Your task to perform on an android device: toggle wifi Image 0: 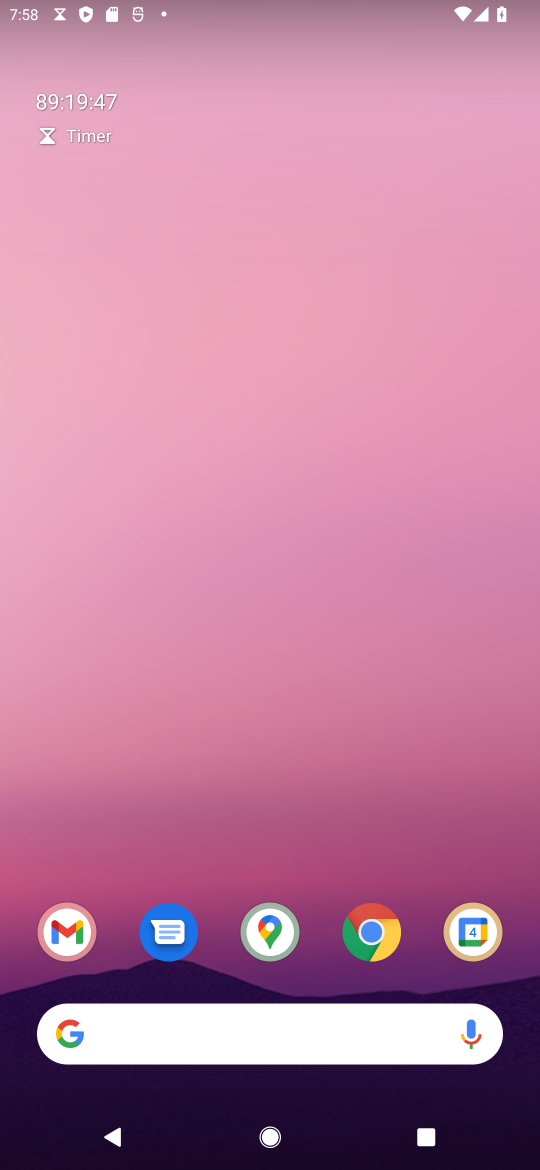
Step 0: drag from (212, 886) to (188, 201)
Your task to perform on an android device: toggle wifi Image 1: 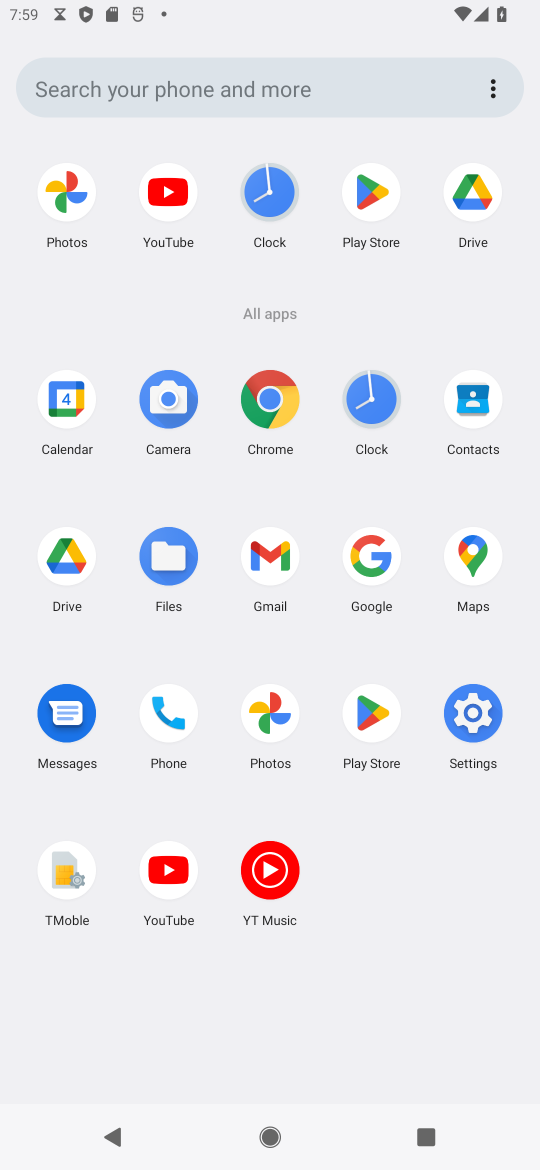
Step 1: click (464, 710)
Your task to perform on an android device: toggle wifi Image 2: 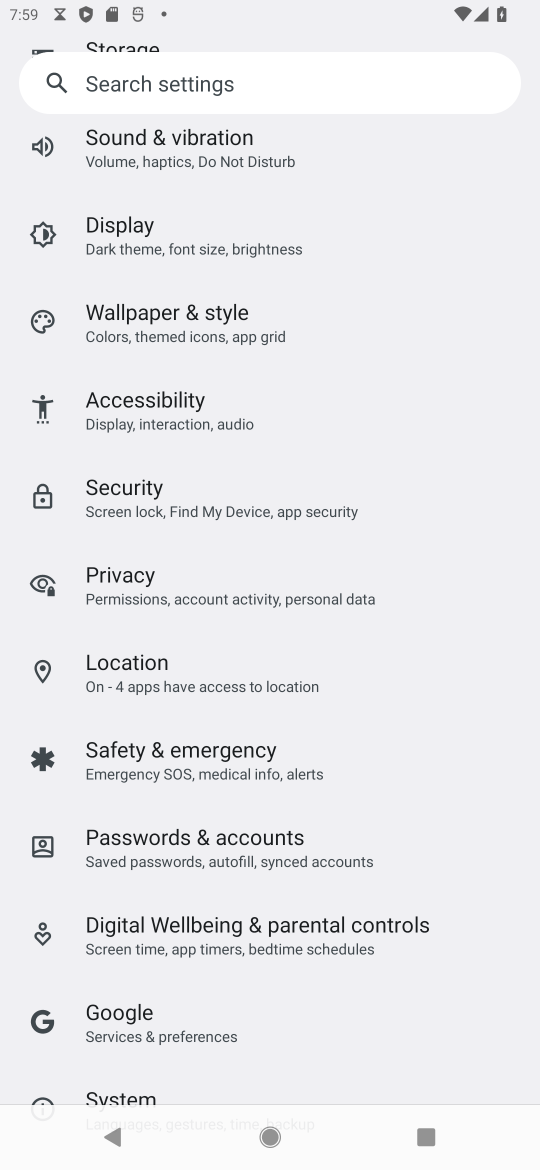
Step 2: drag from (140, 198) to (192, 687)
Your task to perform on an android device: toggle wifi Image 3: 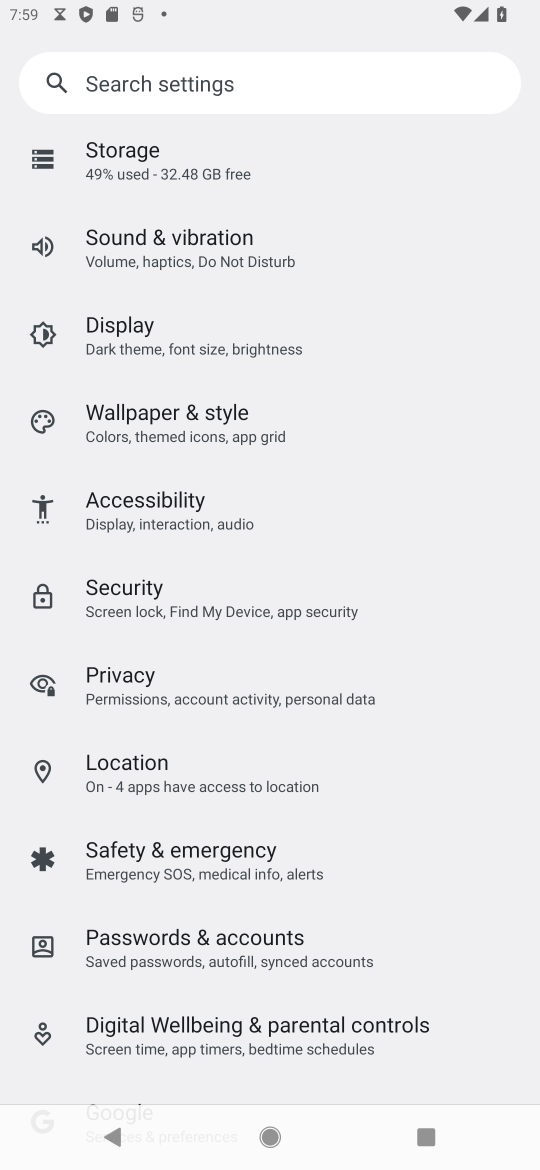
Step 3: drag from (286, 266) to (332, 461)
Your task to perform on an android device: toggle wifi Image 4: 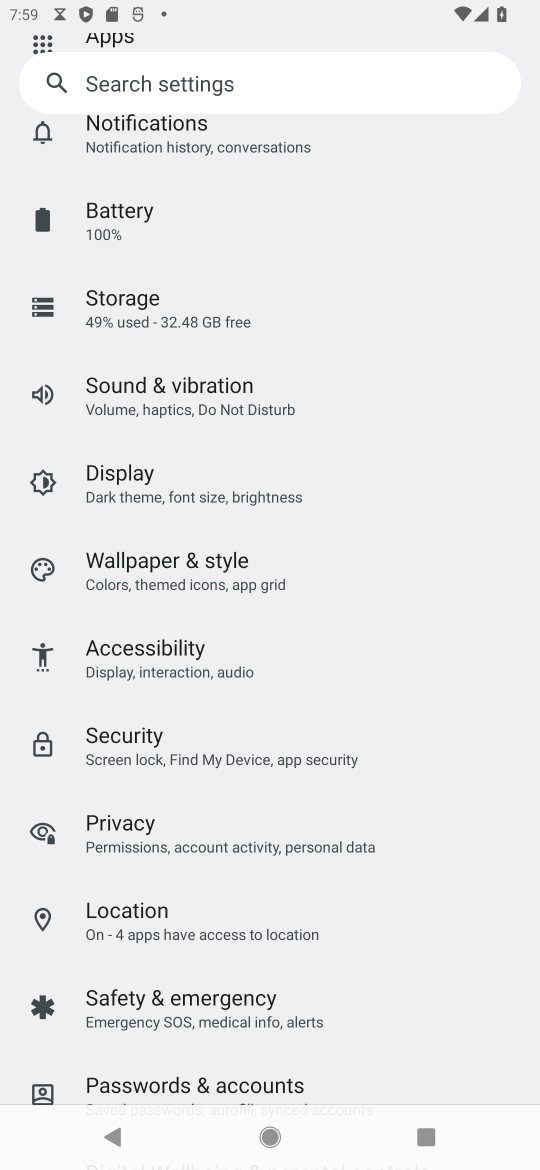
Step 4: drag from (240, 173) to (259, 535)
Your task to perform on an android device: toggle wifi Image 5: 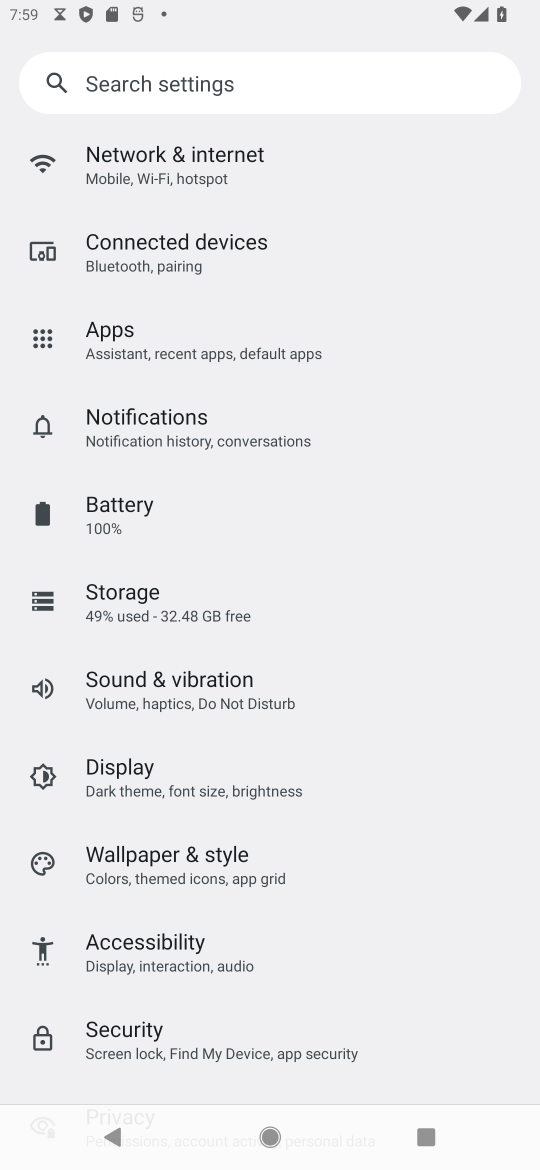
Step 5: click (282, 152)
Your task to perform on an android device: toggle wifi Image 6: 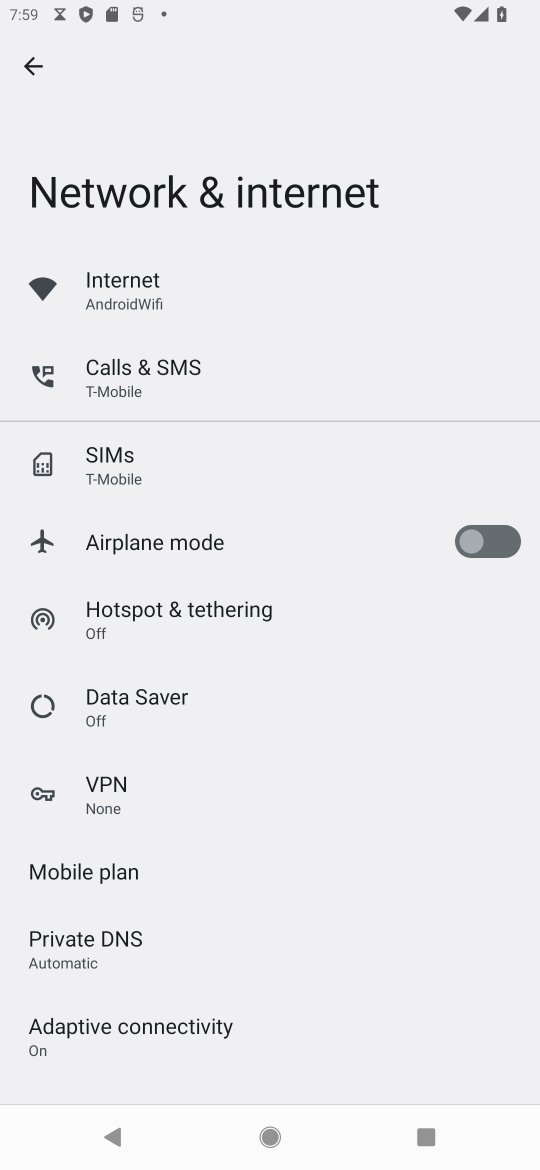
Step 6: click (171, 286)
Your task to perform on an android device: toggle wifi Image 7: 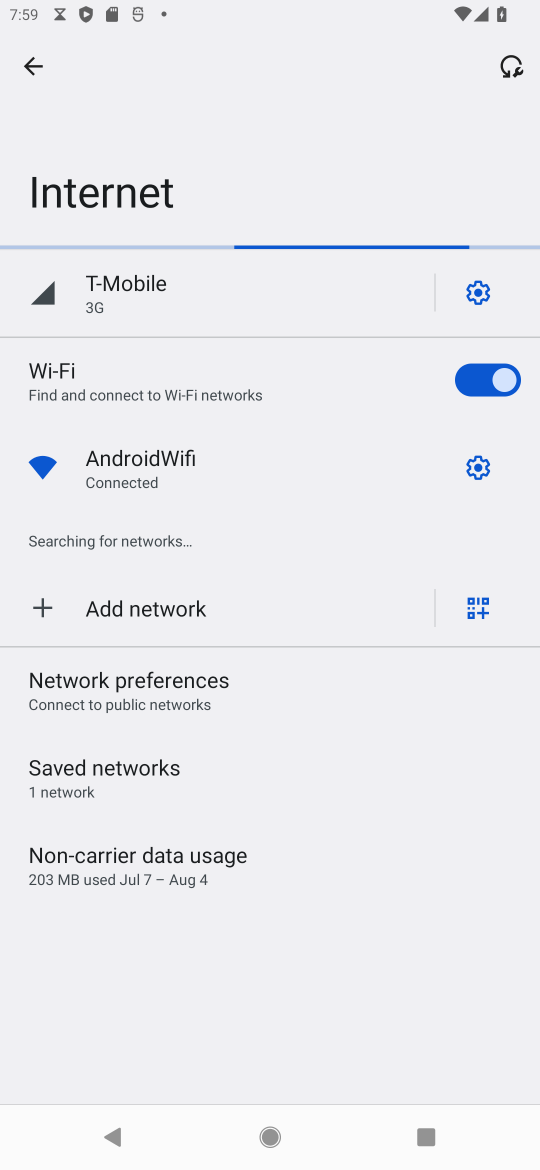
Step 7: click (468, 384)
Your task to perform on an android device: toggle wifi Image 8: 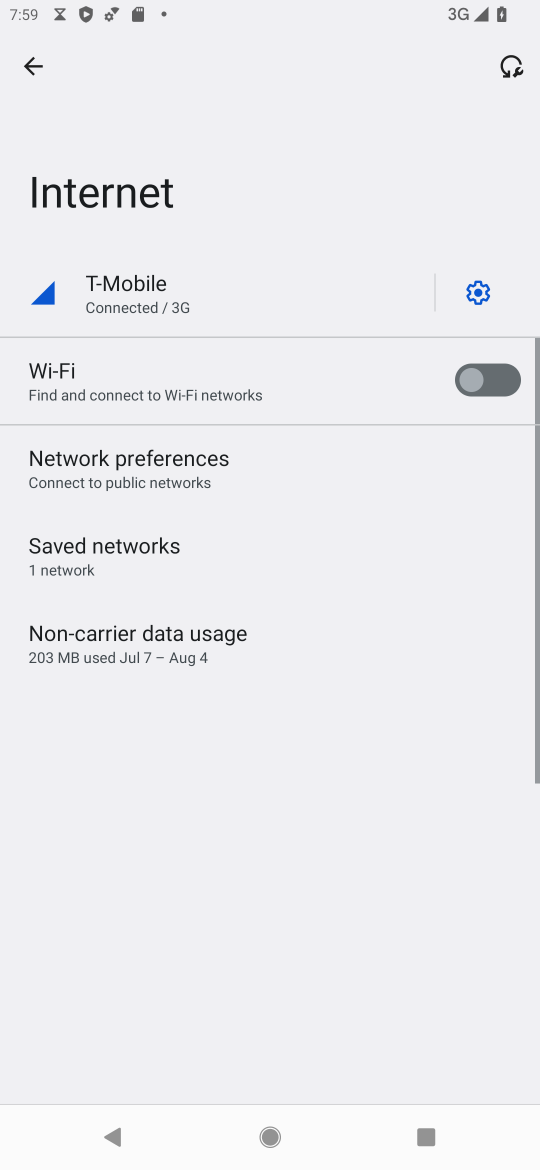
Step 8: task complete